Your task to perform on an android device: Open Chrome and go to settings Image 0: 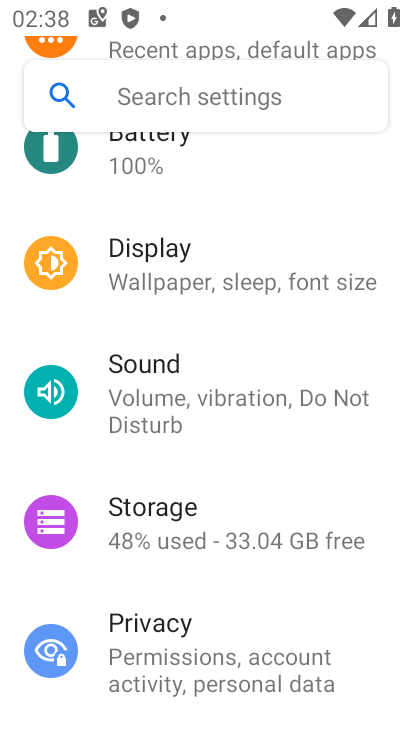
Step 0: press home button
Your task to perform on an android device: Open Chrome and go to settings Image 1: 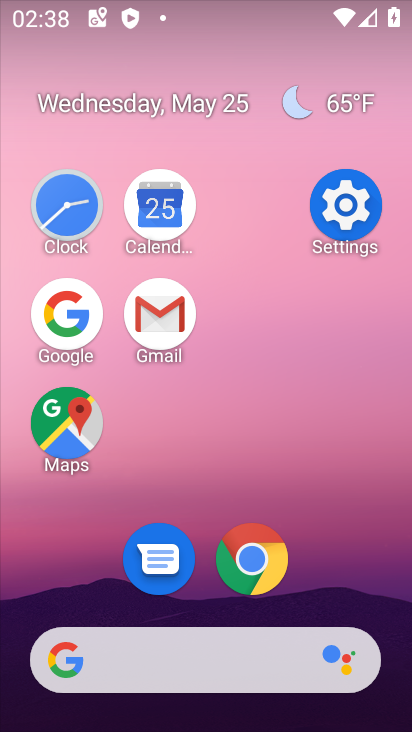
Step 1: click (249, 565)
Your task to perform on an android device: Open Chrome and go to settings Image 2: 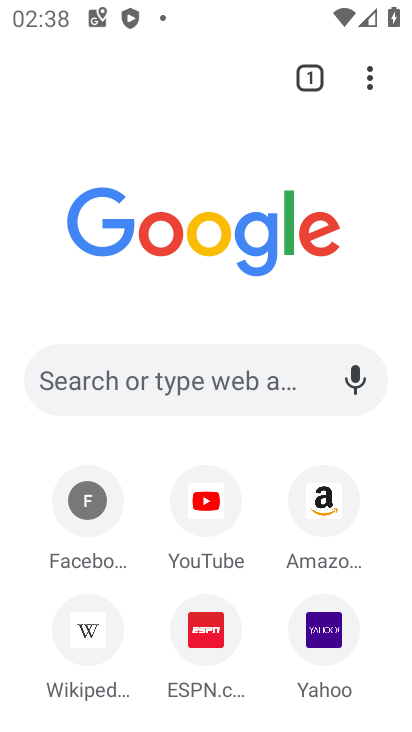
Step 2: click (371, 74)
Your task to perform on an android device: Open Chrome and go to settings Image 3: 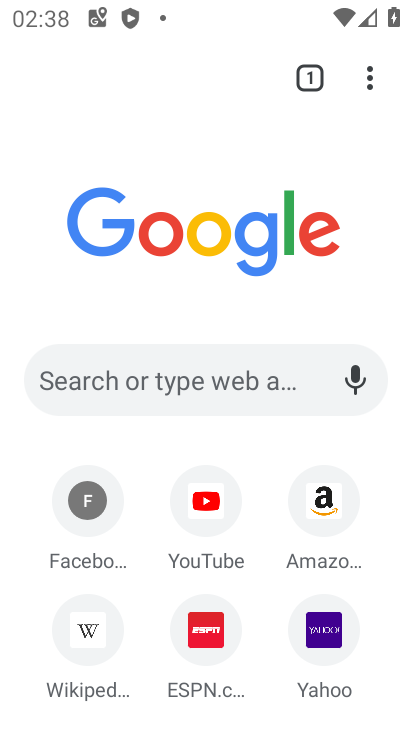
Step 3: click (377, 84)
Your task to perform on an android device: Open Chrome and go to settings Image 4: 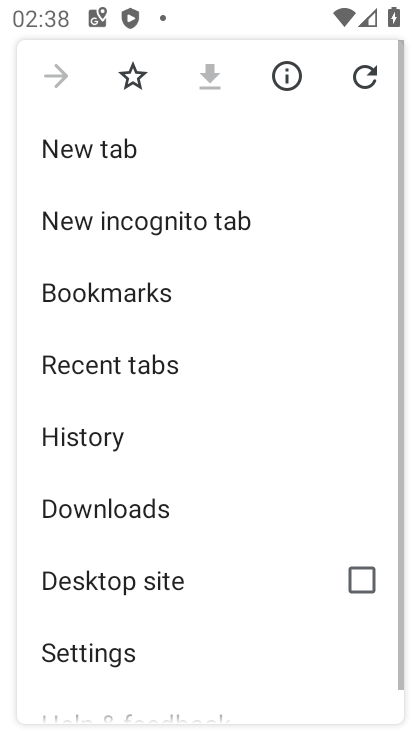
Step 4: drag from (190, 507) to (235, 186)
Your task to perform on an android device: Open Chrome and go to settings Image 5: 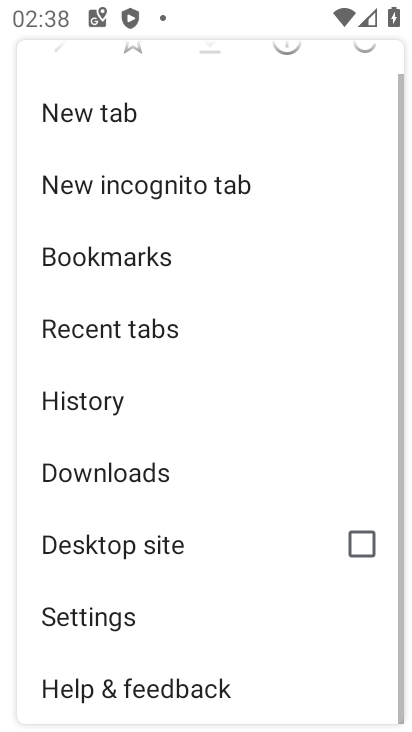
Step 5: click (168, 615)
Your task to perform on an android device: Open Chrome and go to settings Image 6: 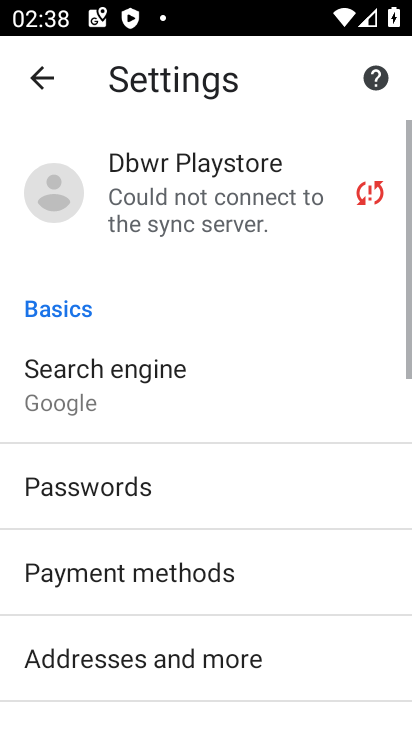
Step 6: task complete